Your task to perform on an android device: turn off data saver in the chrome app Image 0: 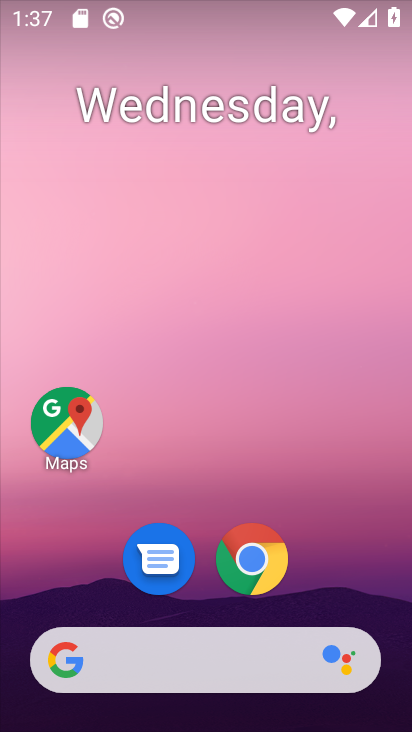
Step 0: click (249, 565)
Your task to perform on an android device: turn off data saver in the chrome app Image 1: 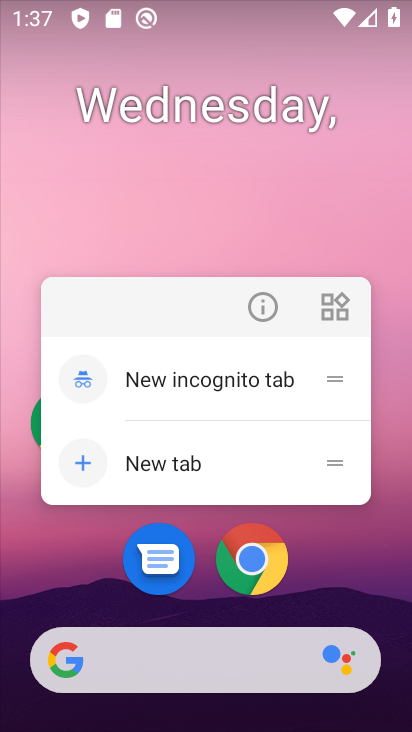
Step 1: click (255, 566)
Your task to perform on an android device: turn off data saver in the chrome app Image 2: 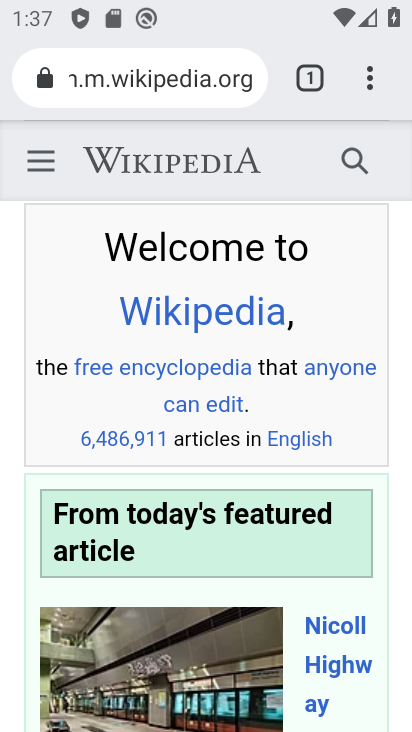
Step 2: click (375, 70)
Your task to perform on an android device: turn off data saver in the chrome app Image 3: 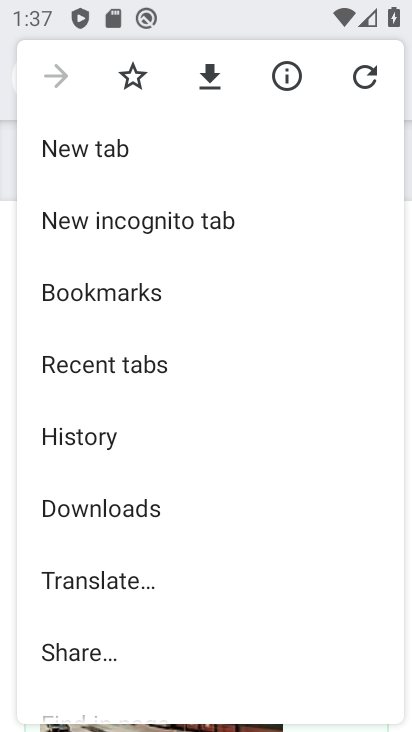
Step 3: drag from (179, 530) to (212, 224)
Your task to perform on an android device: turn off data saver in the chrome app Image 4: 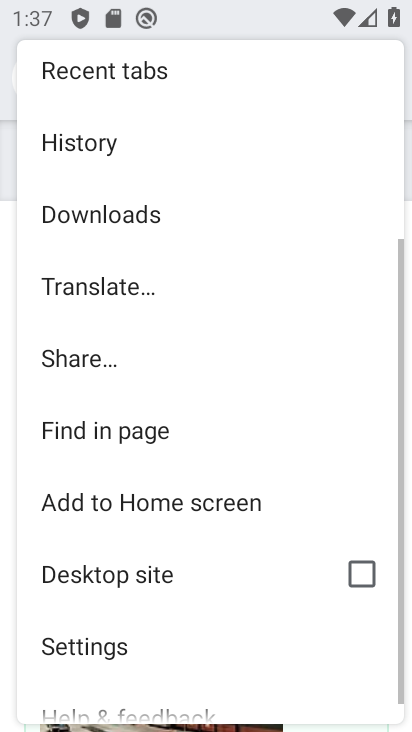
Step 4: click (132, 647)
Your task to perform on an android device: turn off data saver in the chrome app Image 5: 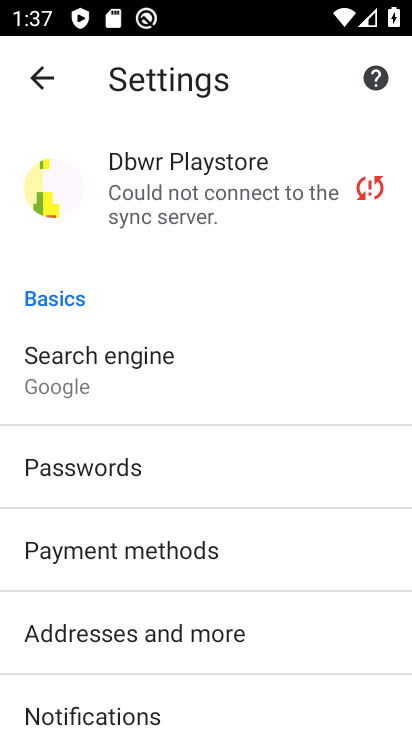
Step 5: drag from (116, 550) to (157, 265)
Your task to perform on an android device: turn off data saver in the chrome app Image 6: 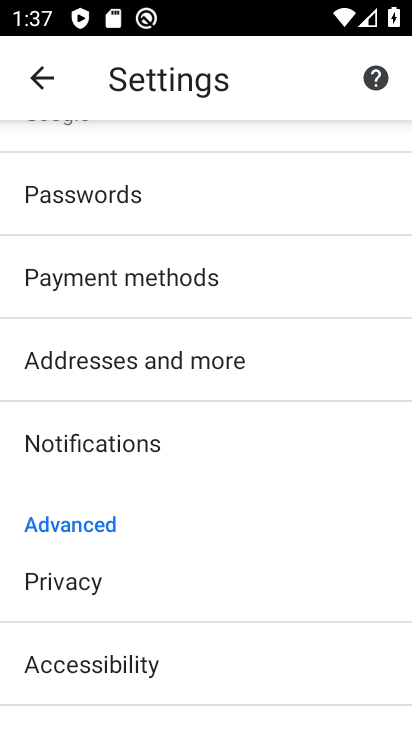
Step 6: drag from (172, 594) to (189, 324)
Your task to perform on an android device: turn off data saver in the chrome app Image 7: 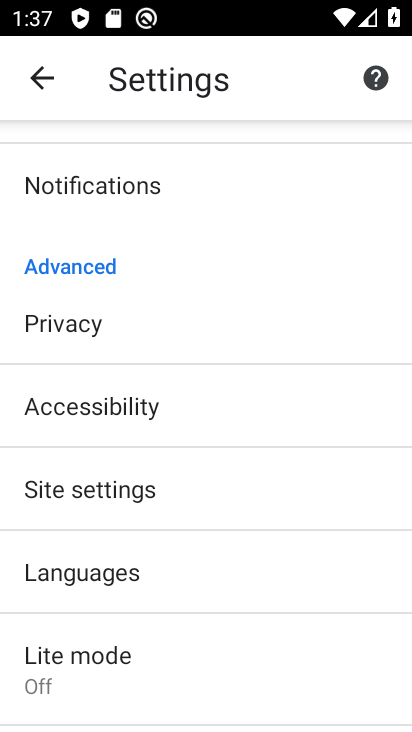
Step 7: click (139, 654)
Your task to perform on an android device: turn off data saver in the chrome app Image 8: 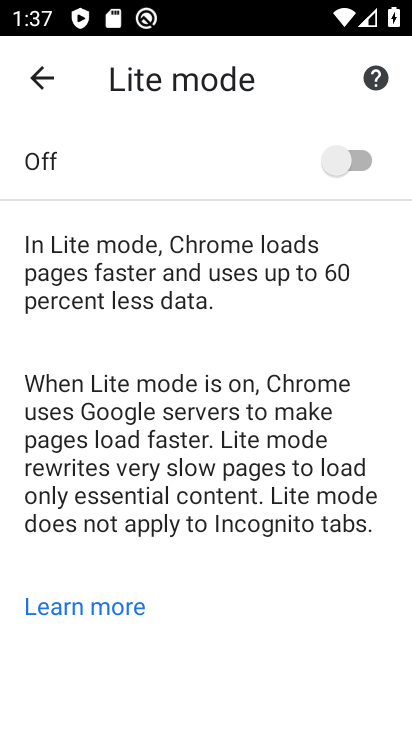
Step 8: task complete